Your task to perform on an android device: How much does a 3 bedroom apartment rent for in Washington DC? Image 0: 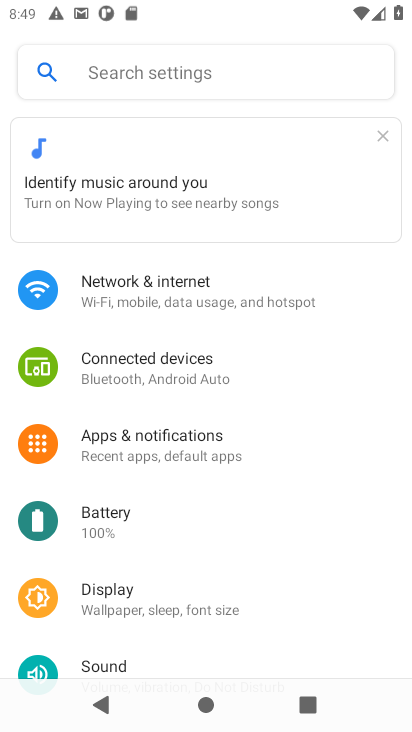
Step 0: press home button
Your task to perform on an android device: How much does a 3 bedroom apartment rent for in Washington DC? Image 1: 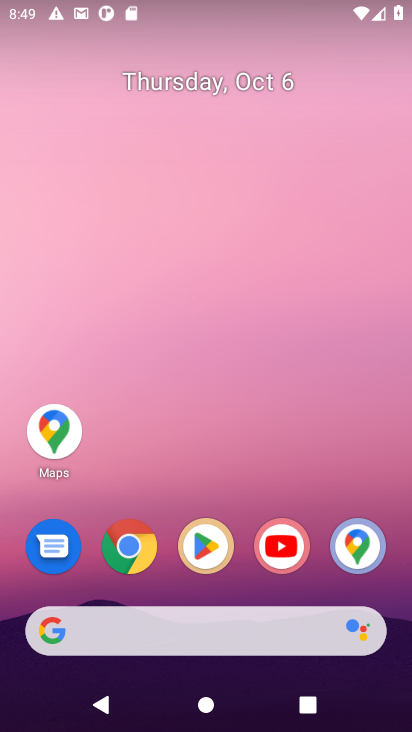
Step 1: click (127, 550)
Your task to perform on an android device: How much does a 3 bedroom apartment rent for in Washington DC? Image 2: 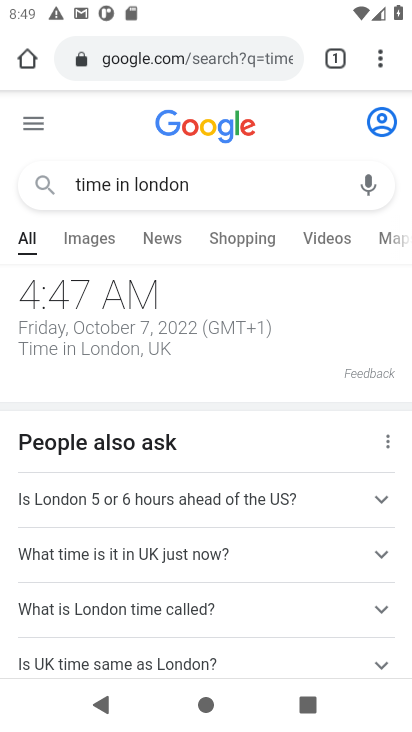
Step 2: click (201, 38)
Your task to perform on an android device: How much does a 3 bedroom apartment rent for in Washington DC? Image 3: 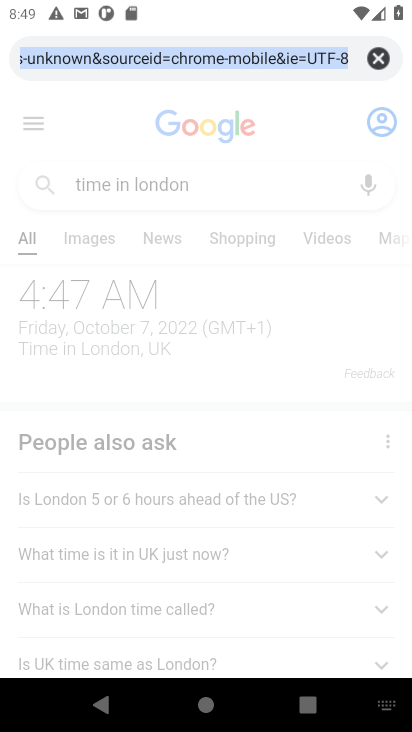
Step 3: click (372, 60)
Your task to perform on an android device: How much does a 3 bedroom apartment rent for in Washington DC? Image 4: 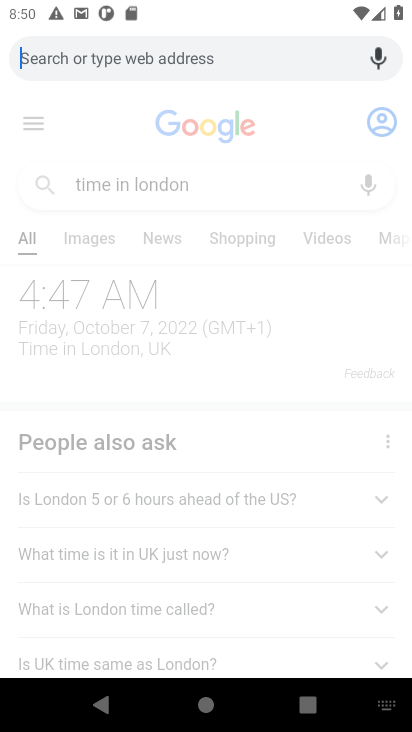
Step 4: type "How much does a 3 bedroom apartment rent for in Washington DC?"
Your task to perform on an android device: How much does a 3 bedroom apartment rent for in Washington DC? Image 5: 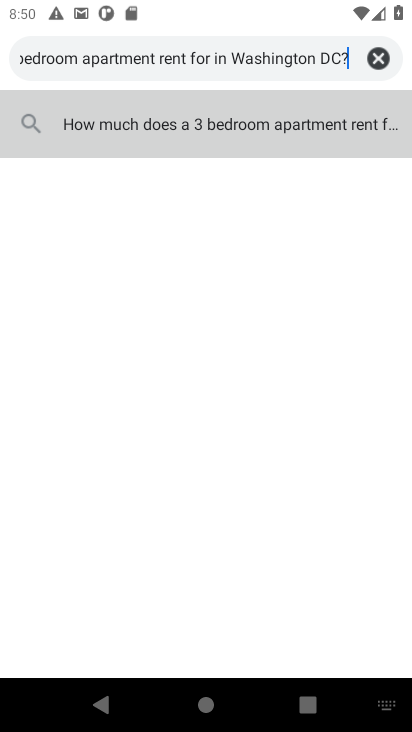
Step 5: click (192, 129)
Your task to perform on an android device: How much does a 3 bedroom apartment rent for in Washington DC? Image 6: 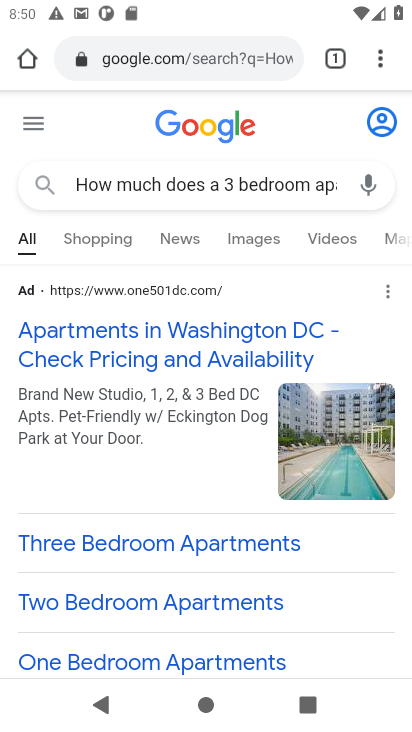
Step 6: click (107, 538)
Your task to perform on an android device: How much does a 3 bedroom apartment rent for in Washington DC? Image 7: 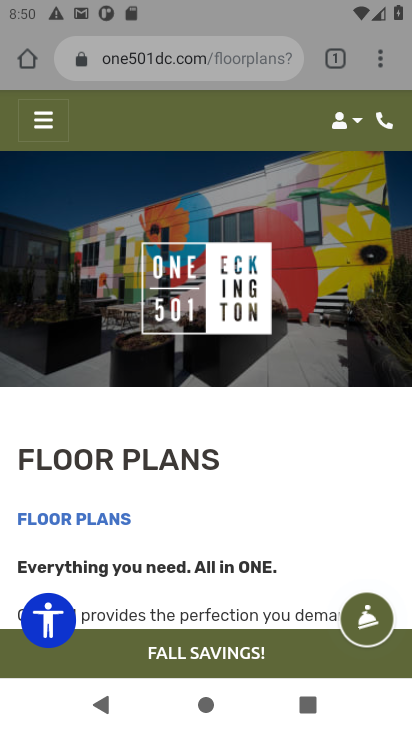
Step 7: task complete